Your task to perform on an android device: delete browsing data in the chrome app Image 0: 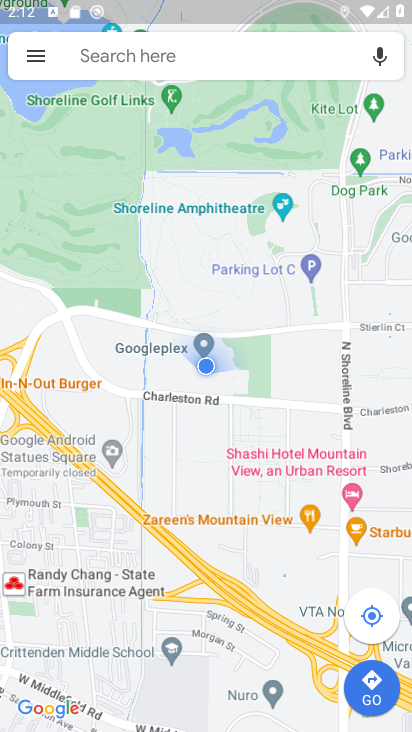
Step 0: press home button
Your task to perform on an android device: delete browsing data in the chrome app Image 1: 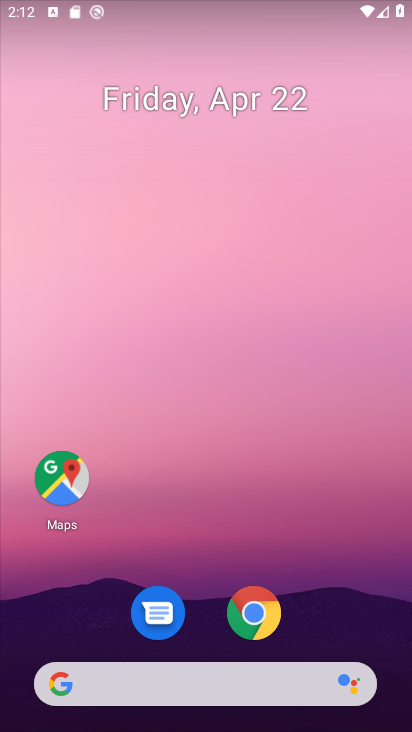
Step 1: click (267, 615)
Your task to perform on an android device: delete browsing data in the chrome app Image 2: 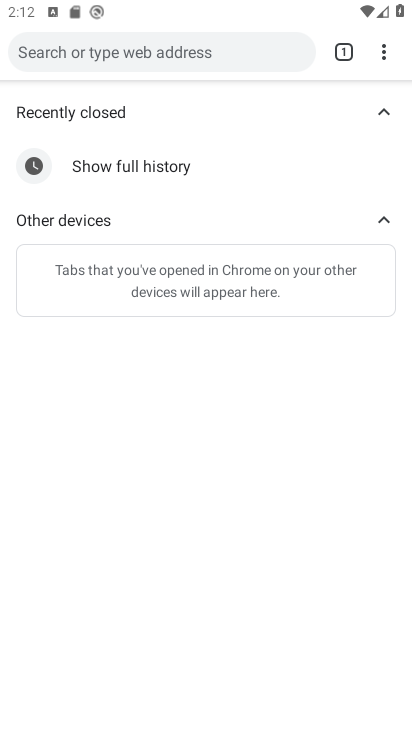
Step 2: click (381, 56)
Your task to perform on an android device: delete browsing data in the chrome app Image 3: 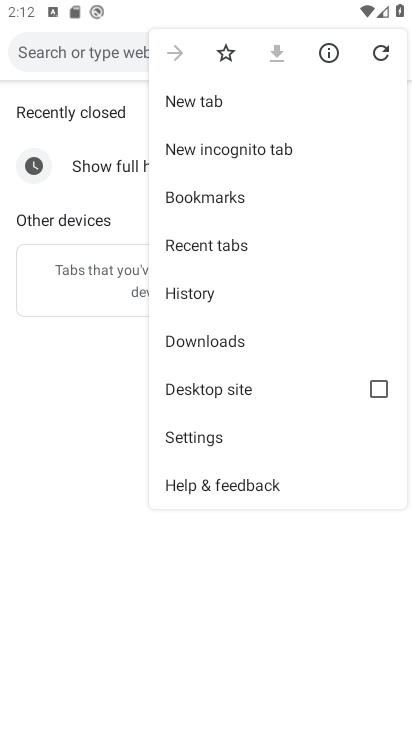
Step 3: click (220, 294)
Your task to perform on an android device: delete browsing data in the chrome app Image 4: 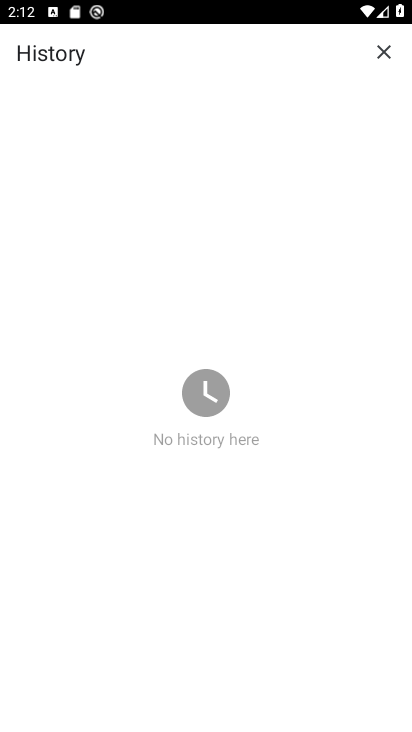
Step 4: task complete